Your task to perform on an android device: turn off picture-in-picture Image 0: 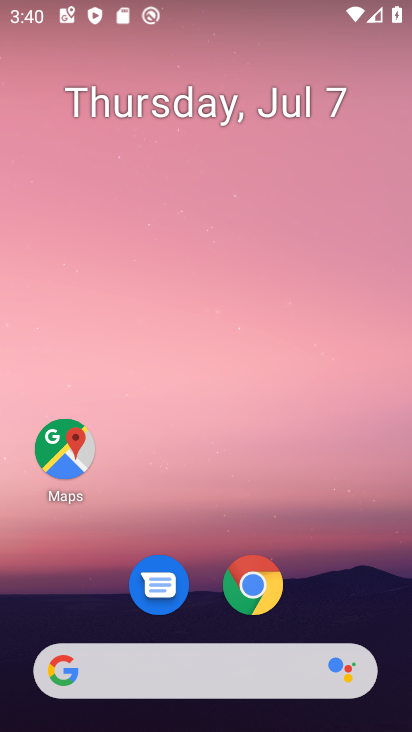
Step 0: click (268, 571)
Your task to perform on an android device: turn off picture-in-picture Image 1: 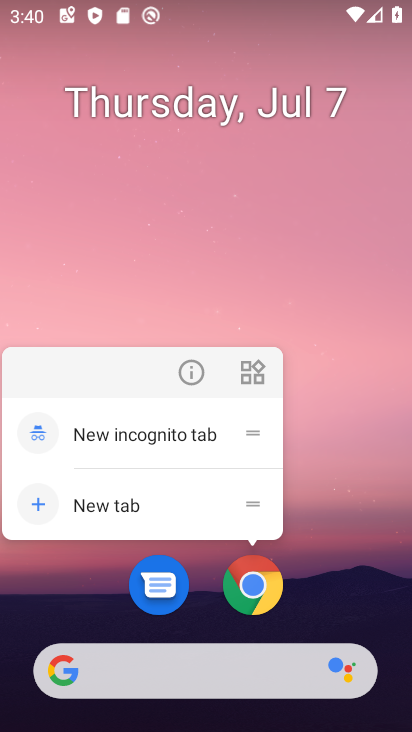
Step 1: click (198, 366)
Your task to perform on an android device: turn off picture-in-picture Image 2: 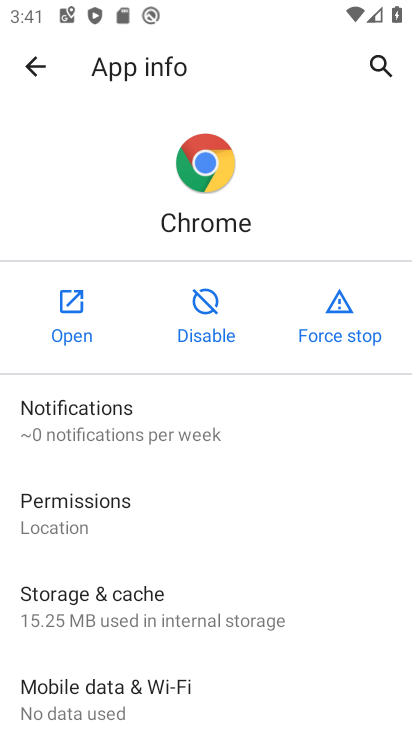
Step 2: drag from (198, 239) to (191, 176)
Your task to perform on an android device: turn off picture-in-picture Image 3: 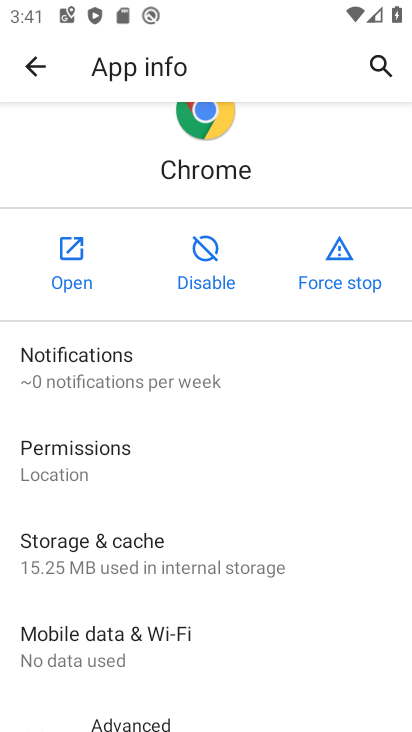
Step 3: drag from (151, 670) to (182, 353)
Your task to perform on an android device: turn off picture-in-picture Image 4: 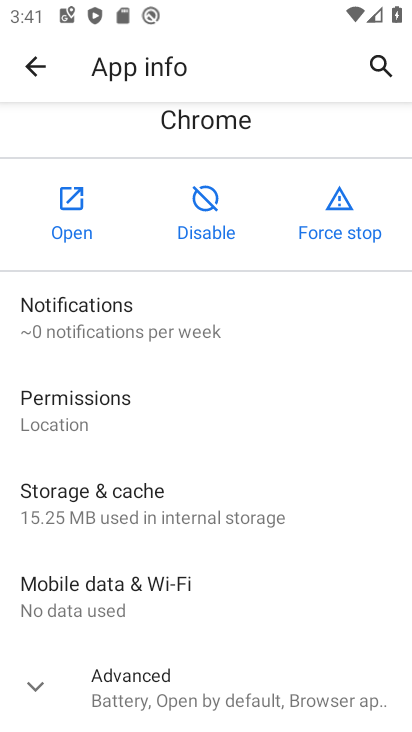
Step 4: click (30, 682)
Your task to perform on an android device: turn off picture-in-picture Image 5: 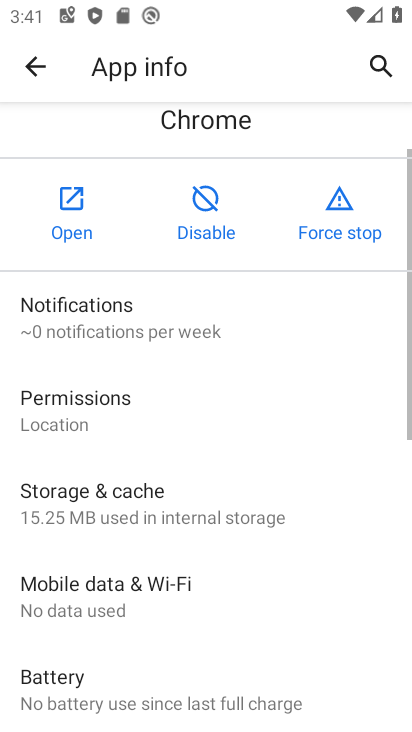
Step 5: drag from (236, 594) to (238, 111)
Your task to perform on an android device: turn off picture-in-picture Image 6: 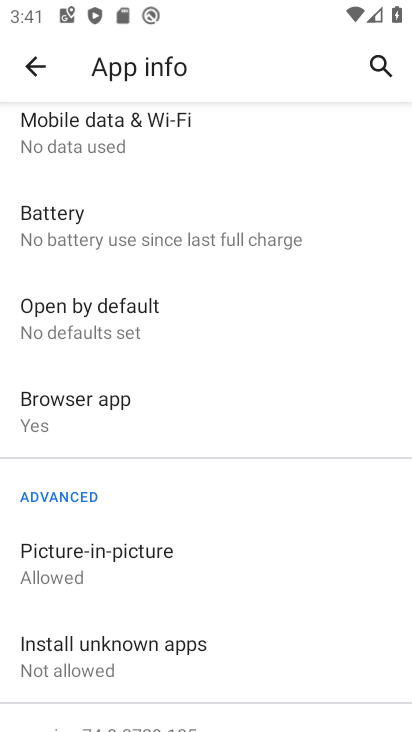
Step 6: click (108, 551)
Your task to perform on an android device: turn off picture-in-picture Image 7: 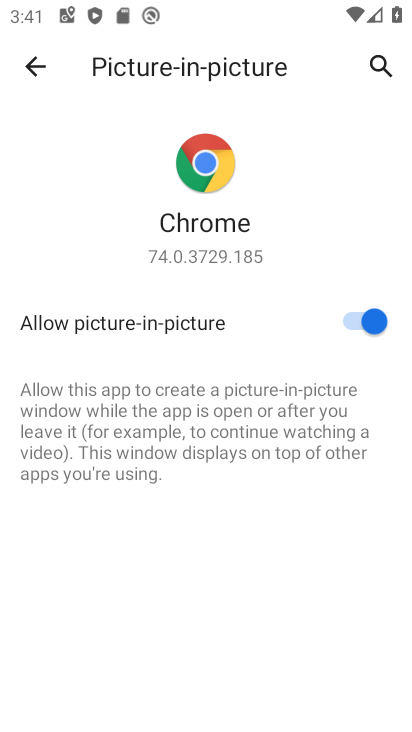
Step 7: click (361, 308)
Your task to perform on an android device: turn off picture-in-picture Image 8: 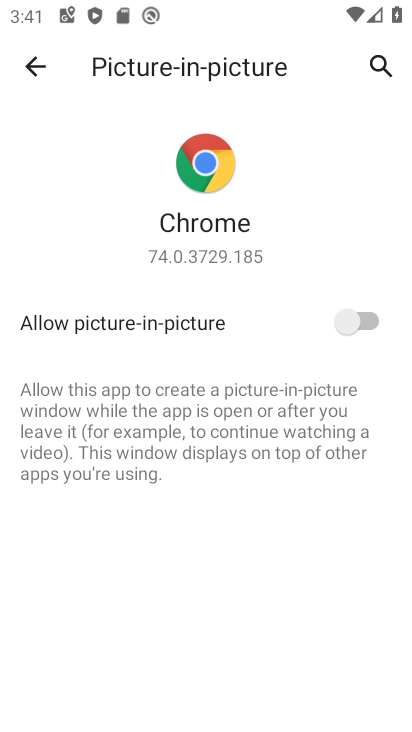
Step 8: task complete